Your task to perform on an android device: Show the shopping cart on costco.com. Image 0: 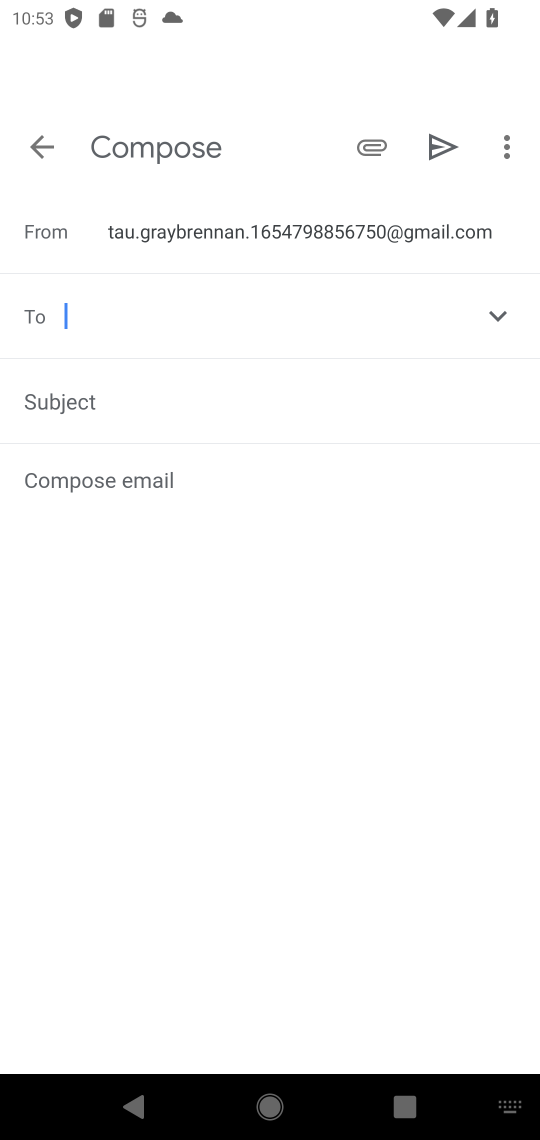
Step 0: press home button
Your task to perform on an android device: Show the shopping cart on costco.com. Image 1: 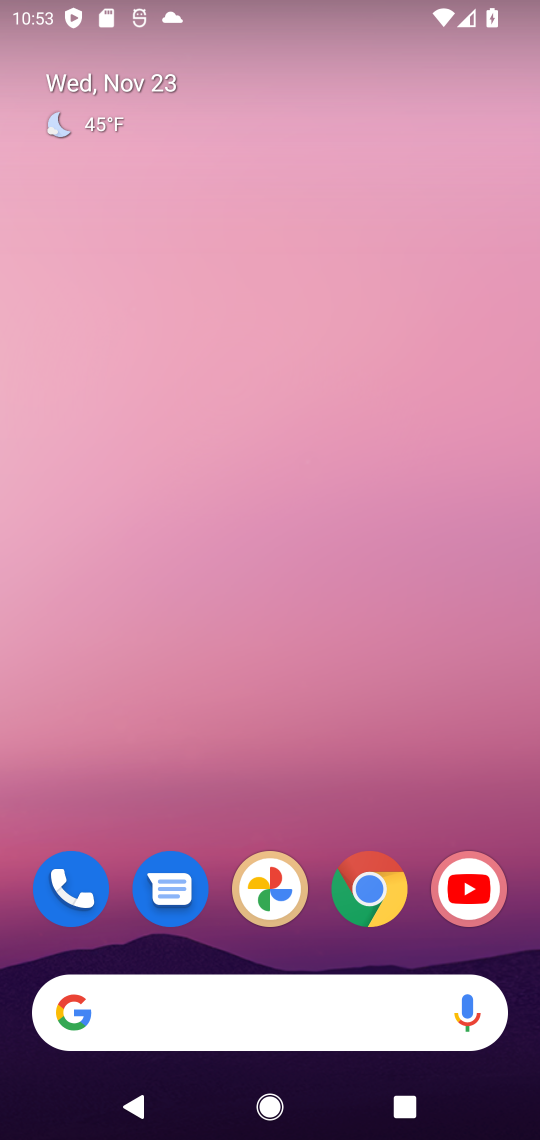
Step 1: click (376, 903)
Your task to perform on an android device: Show the shopping cart on costco.com. Image 2: 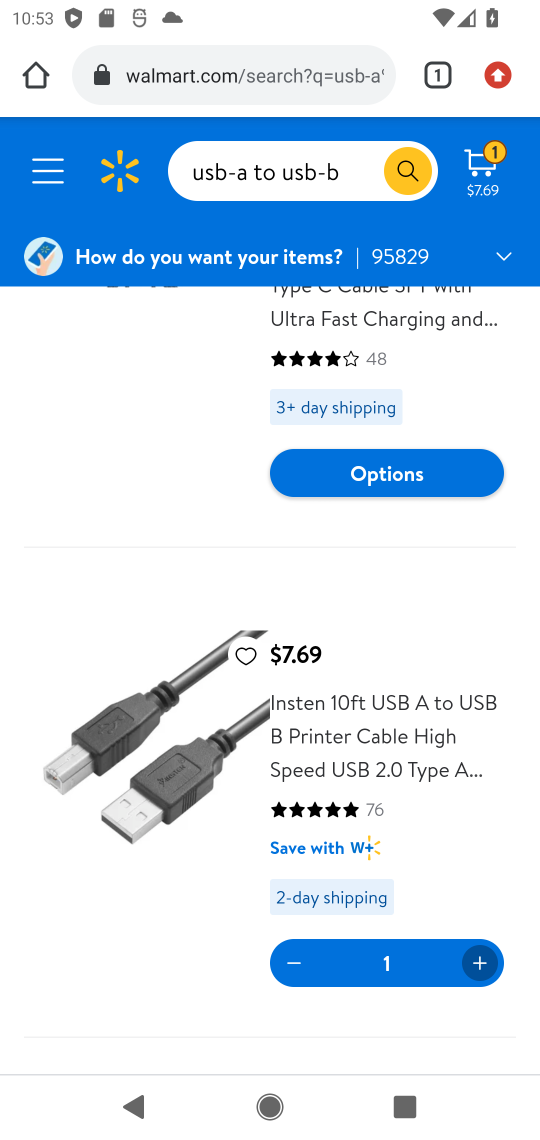
Step 2: click (253, 82)
Your task to perform on an android device: Show the shopping cart on costco.com. Image 3: 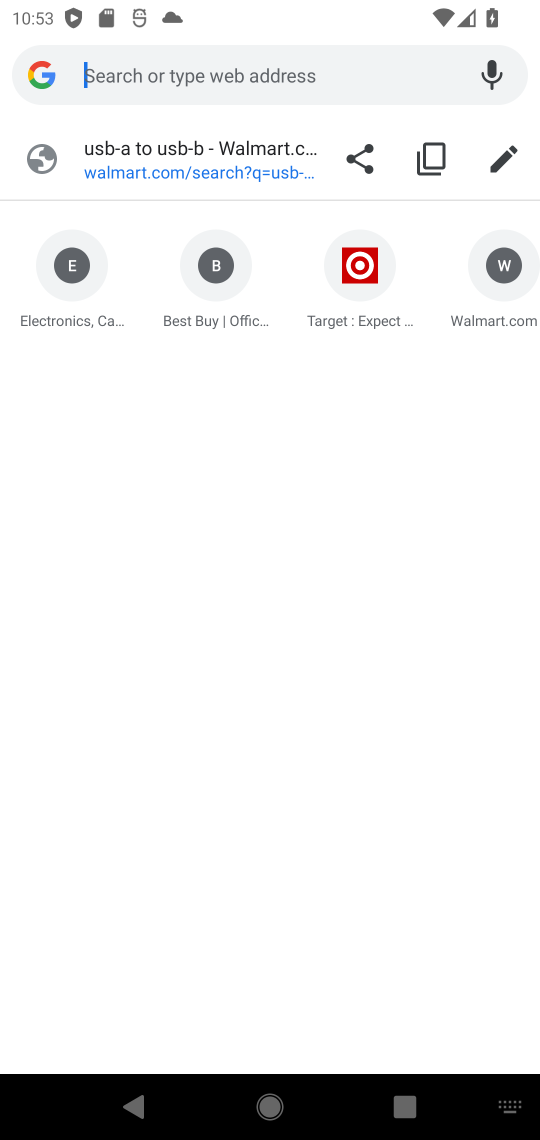
Step 3: type "costco.com"
Your task to perform on an android device: Show the shopping cart on costco.com. Image 4: 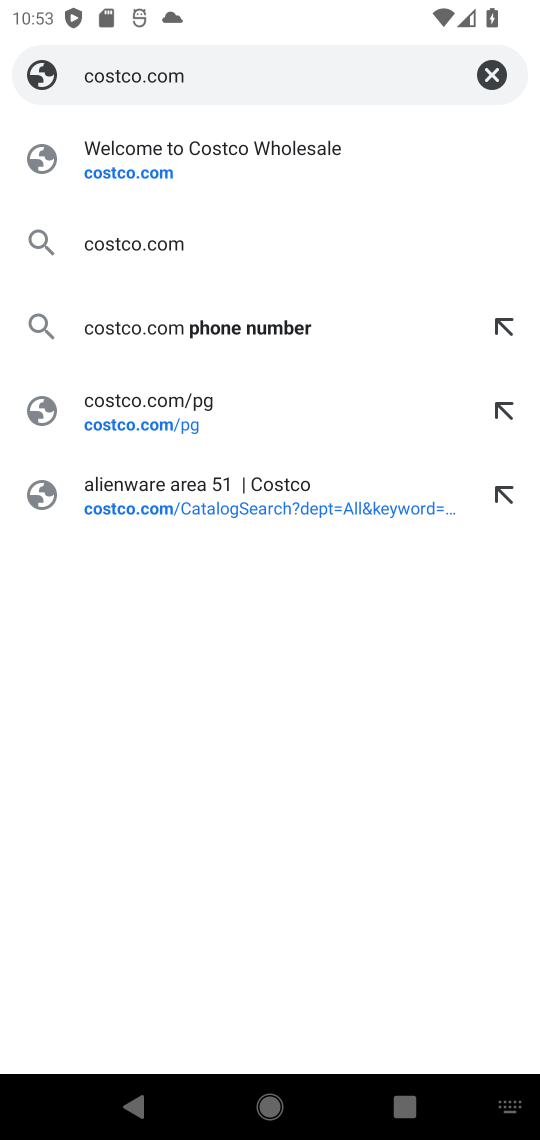
Step 4: click (93, 171)
Your task to perform on an android device: Show the shopping cart on costco.com. Image 5: 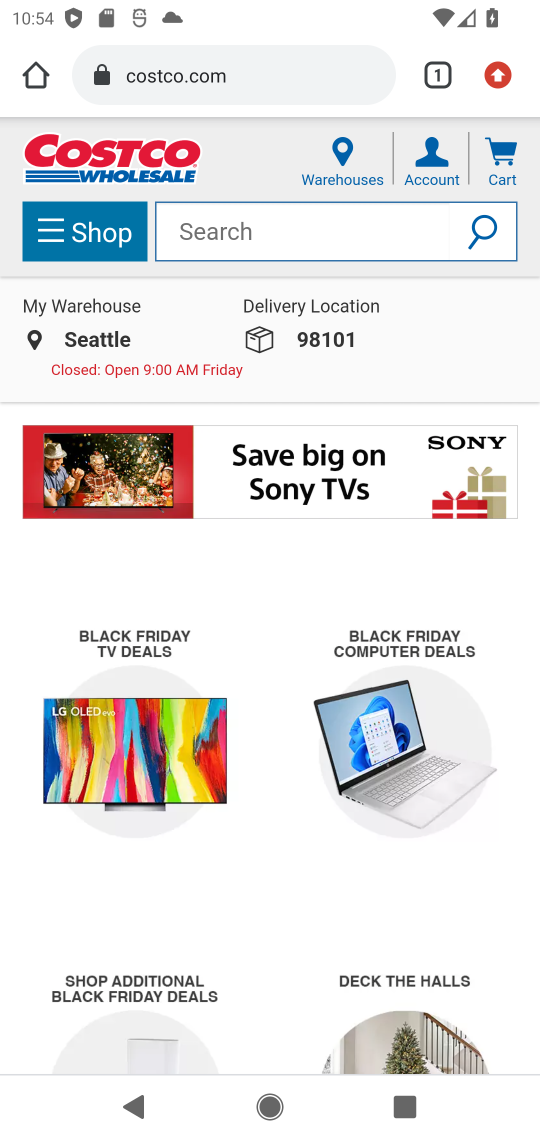
Step 5: click (494, 162)
Your task to perform on an android device: Show the shopping cart on costco.com. Image 6: 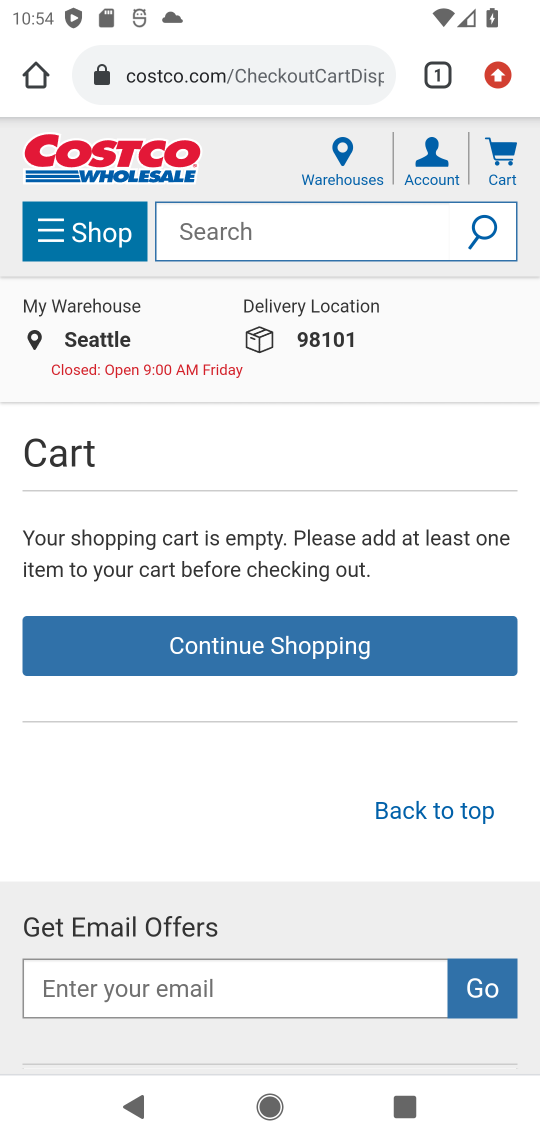
Step 6: task complete